Your task to perform on an android device: empty trash in the gmail app Image 0: 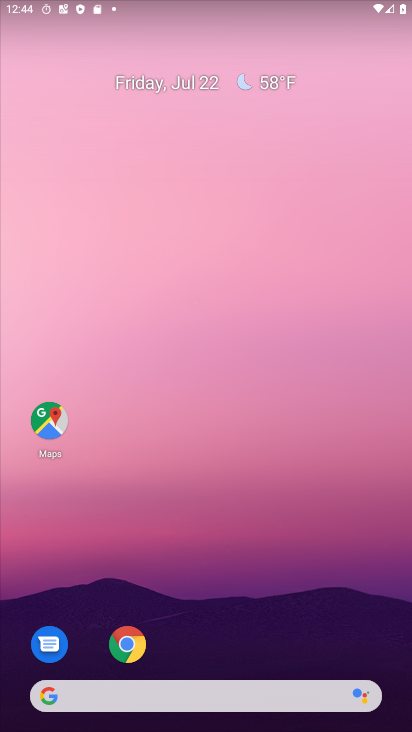
Step 0: drag from (165, 463) to (273, 91)
Your task to perform on an android device: empty trash in the gmail app Image 1: 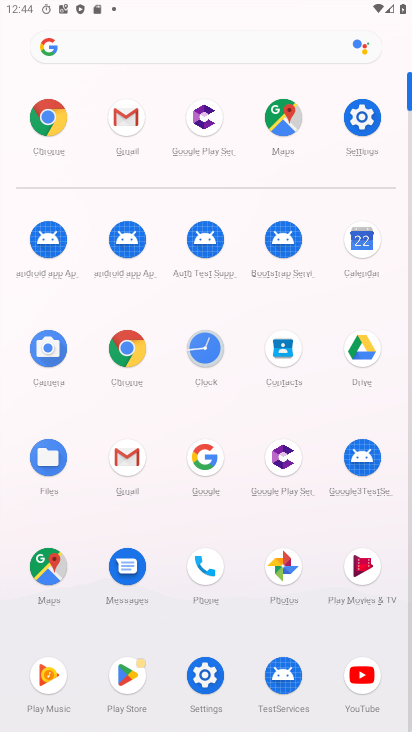
Step 1: click (119, 446)
Your task to perform on an android device: empty trash in the gmail app Image 2: 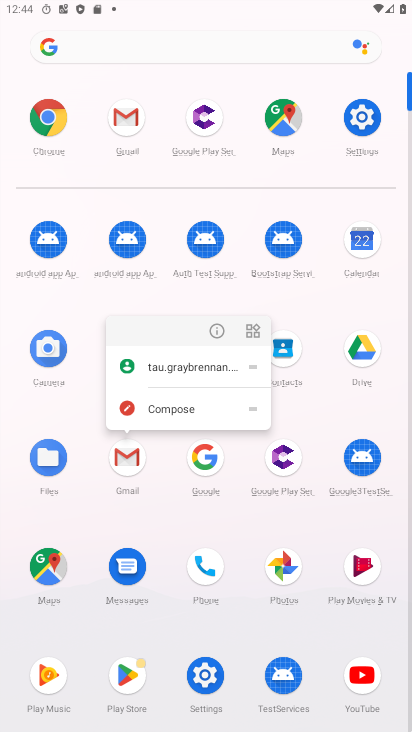
Step 2: click (217, 339)
Your task to perform on an android device: empty trash in the gmail app Image 3: 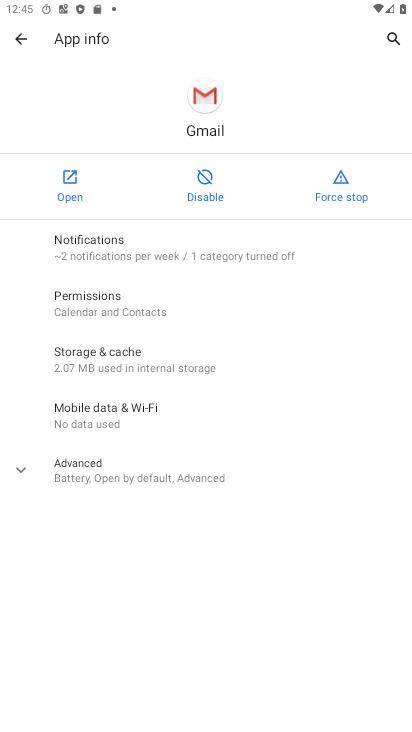
Step 3: click (79, 193)
Your task to perform on an android device: empty trash in the gmail app Image 4: 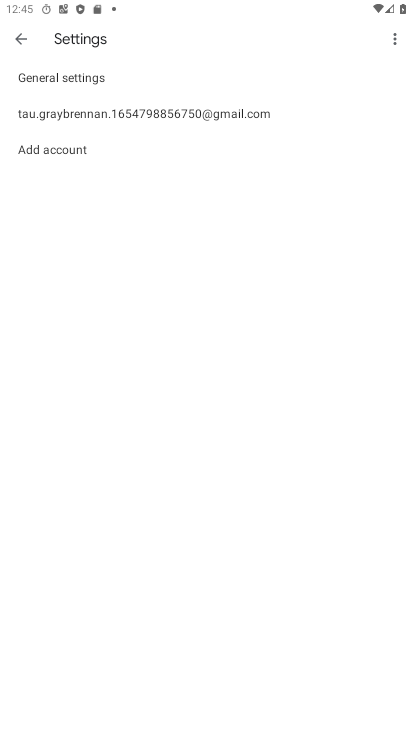
Step 4: drag from (178, 397) to (162, 186)
Your task to perform on an android device: empty trash in the gmail app Image 5: 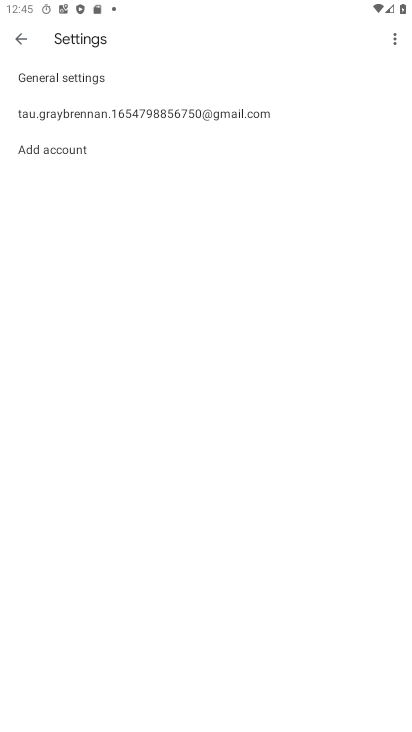
Step 5: click (17, 41)
Your task to perform on an android device: empty trash in the gmail app Image 6: 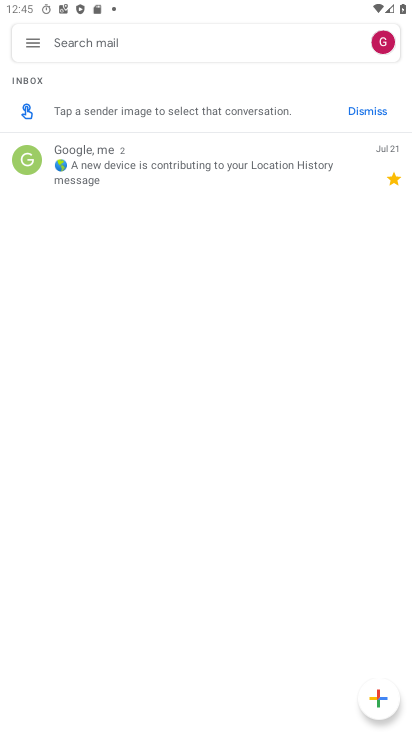
Step 6: click (23, 26)
Your task to perform on an android device: empty trash in the gmail app Image 7: 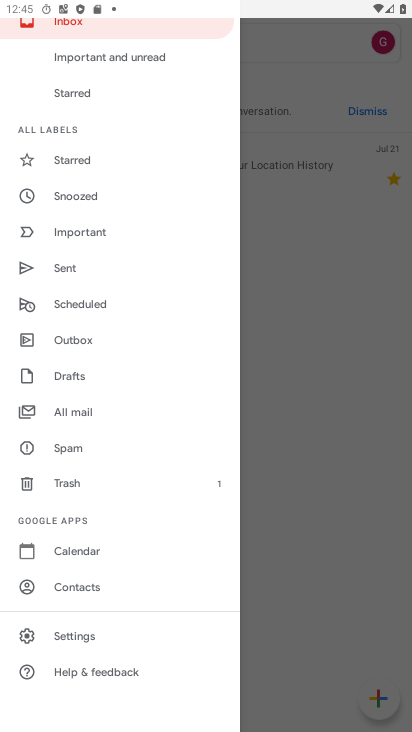
Step 7: click (61, 476)
Your task to perform on an android device: empty trash in the gmail app Image 8: 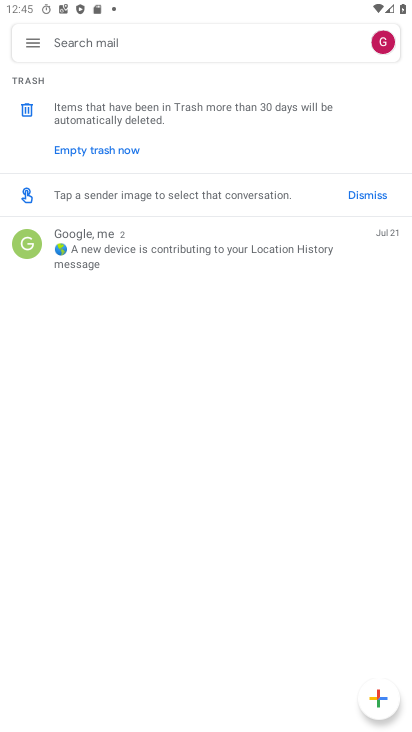
Step 8: click (27, 35)
Your task to perform on an android device: empty trash in the gmail app Image 9: 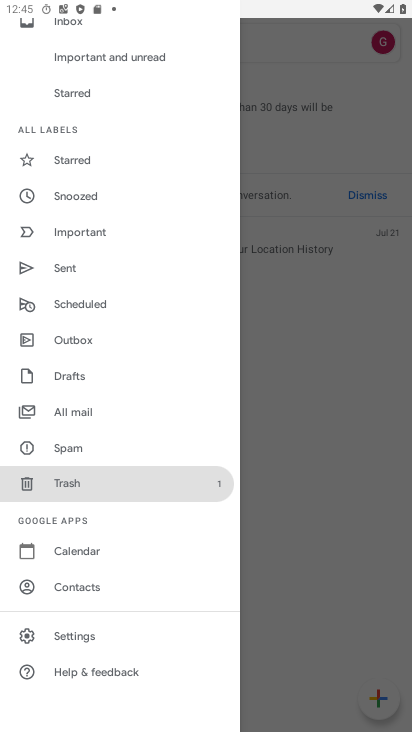
Step 9: click (66, 480)
Your task to perform on an android device: empty trash in the gmail app Image 10: 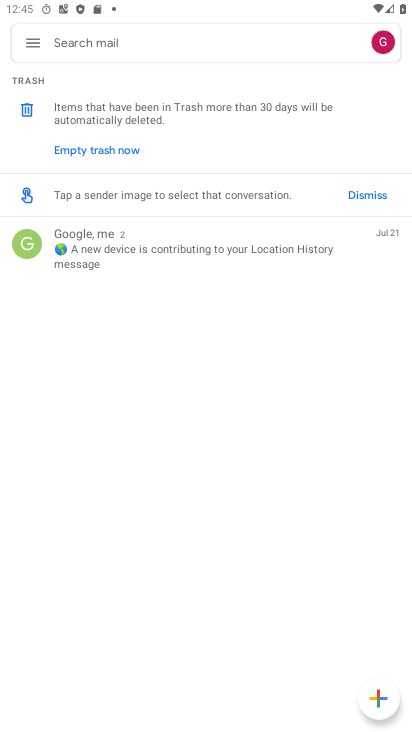
Step 10: drag from (220, 618) to (229, 366)
Your task to perform on an android device: empty trash in the gmail app Image 11: 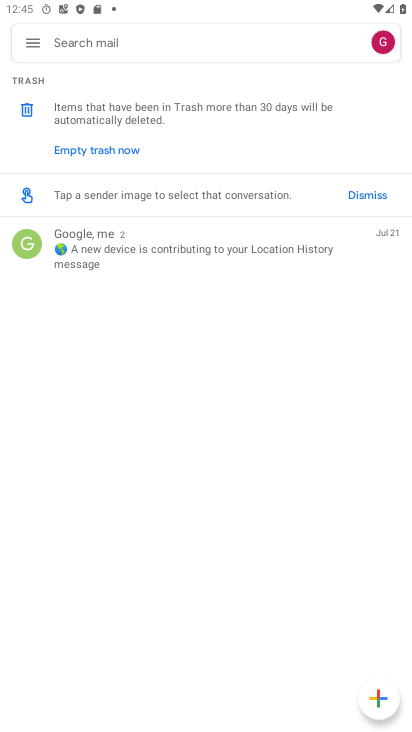
Step 11: click (32, 40)
Your task to perform on an android device: empty trash in the gmail app Image 12: 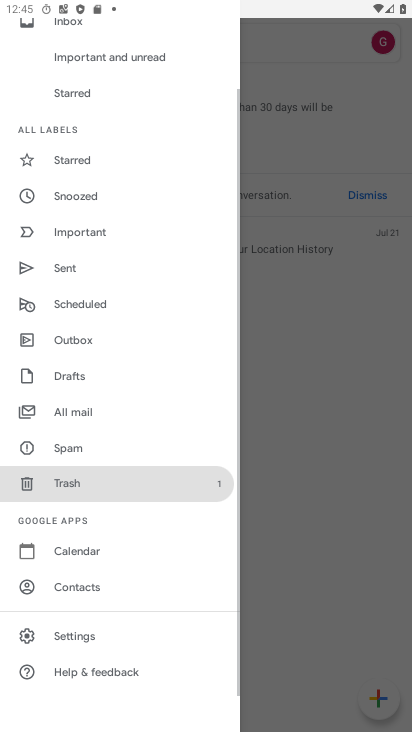
Step 12: click (56, 475)
Your task to perform on an android device: empty trash in the gmail app Image 13: 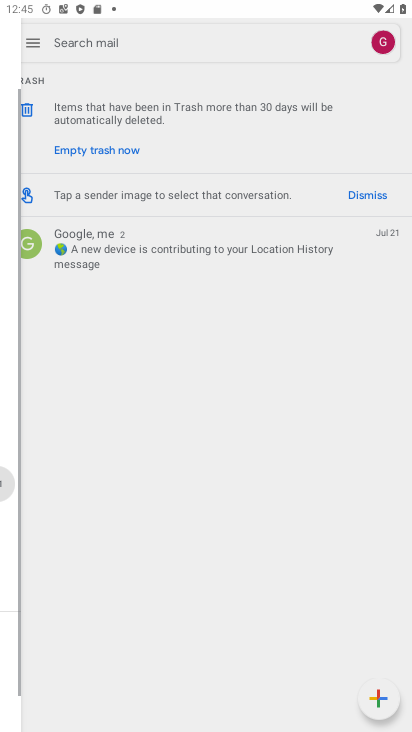
Step 13: drag from (222, 495) to (271, 336)
Your task to perform on an android device: empty trash in the gmail app Image 14: 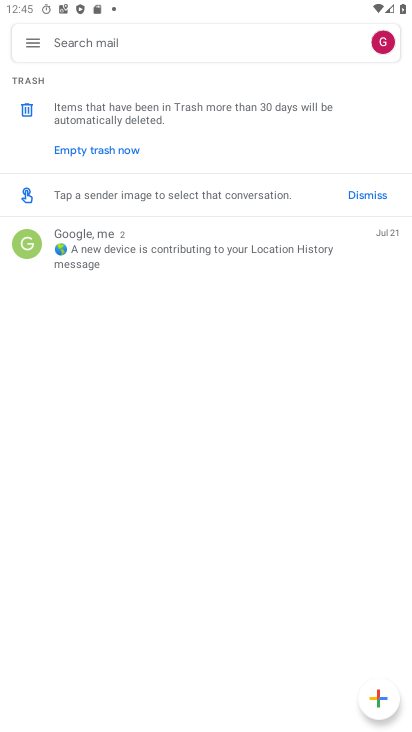
Step 14: drag from (333, 387) to (334, 255)
Your task to perform on an android device: empty trash in the gmail app Image 15: 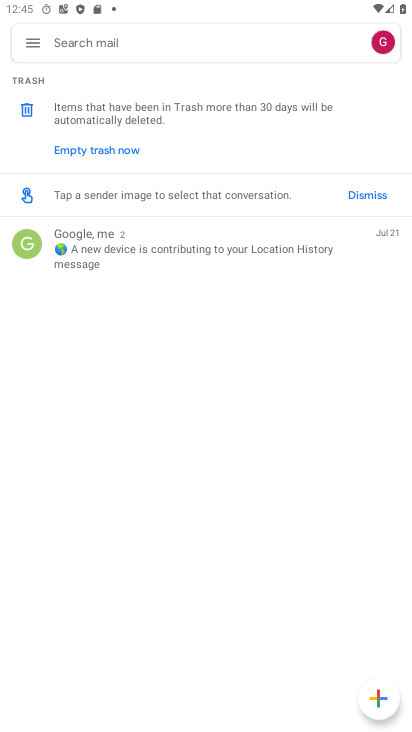
Step 15: click (82, 155)
Your task to perform on an android device: empty trash in the gmail app Image 16: 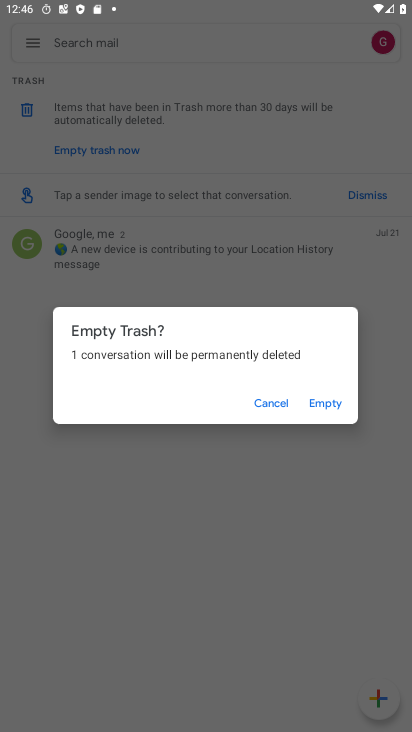
Step 16: click (320, 404)
Your task to perform on an android device: empty trash in the gmail app Image 17: 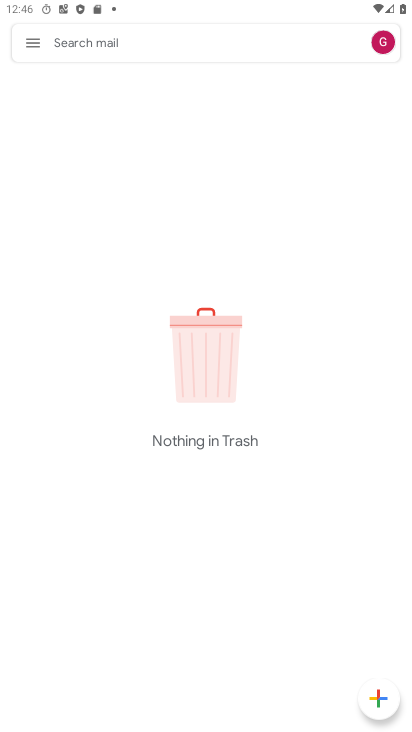
Step 17: drag from (148, 600) to (217, 306)
Your task to perform on an android device: empty trash in the gmail app Image 18: 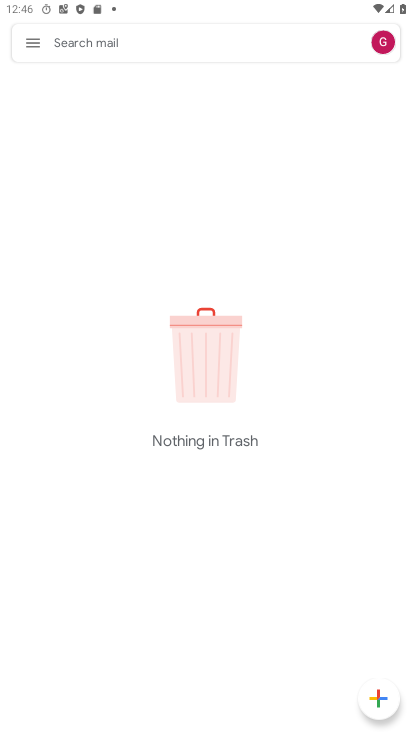
Step 18: drag from (269, 453) to (267, 193)
Your task to perform on an android device: empty trash in the gmail app Image 19: 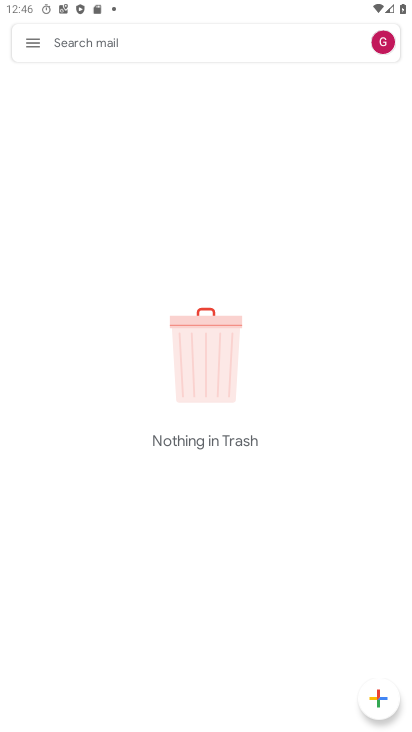
Step 19: drag from (122, 264) to (156, 135)
Your task to perform on an android device: empty trash in the gmail app Image 20: 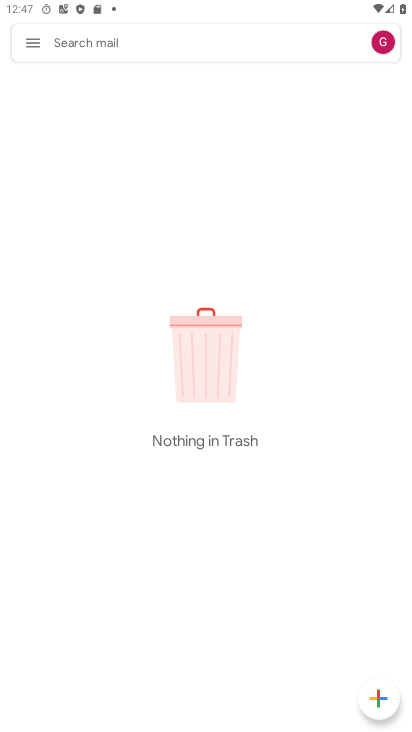
Step 20: click (36, 43)
Your task to perform on an android device: empty trash in the gmail app Image 21: 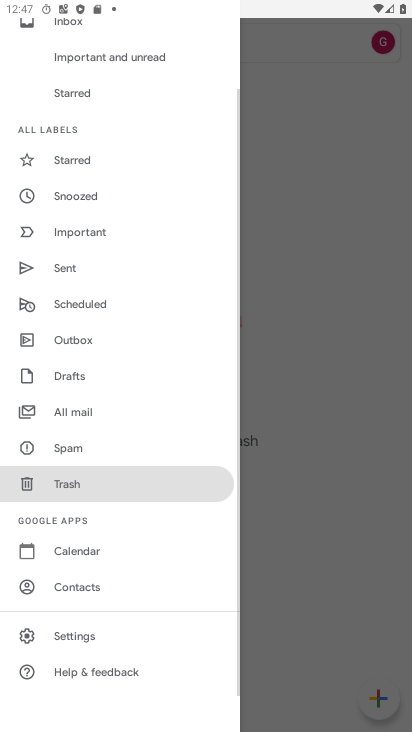
Step 21: click (78, 471)
Your task to perform on an android device: empty trash in the gmail app Image 22: 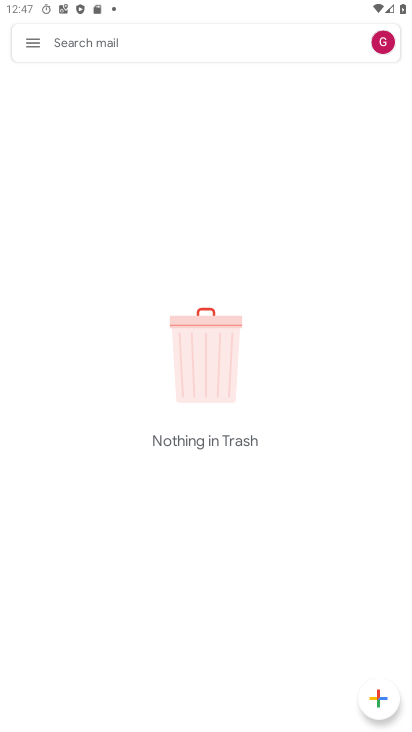
Step 22: task complete